Your task to perform on an android device: Go to wifi settings Image 0: 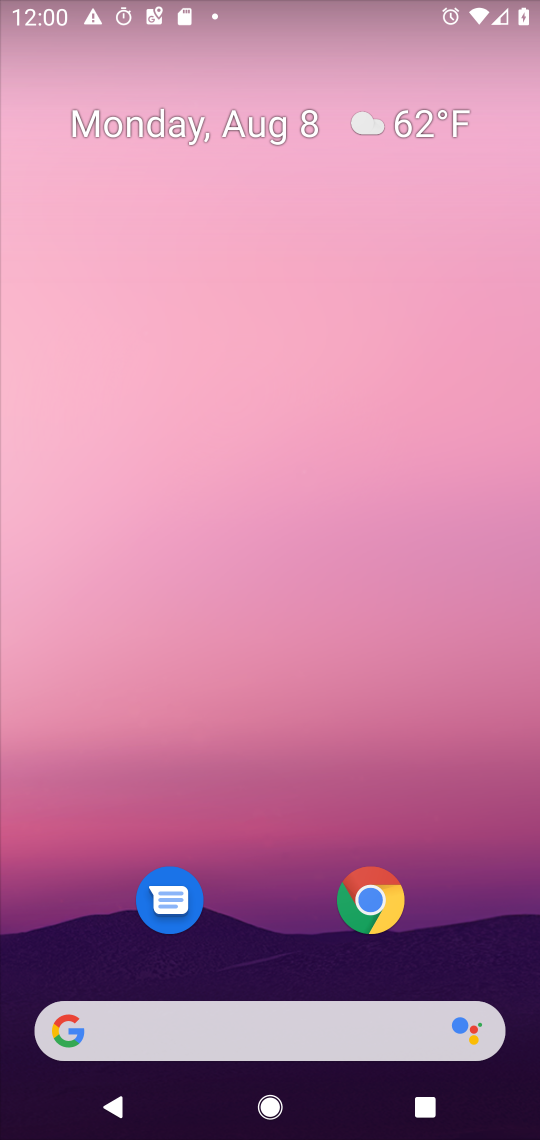
Step 0: press home button
Your task to perform on an android device: Go to wifi settings Image 1: 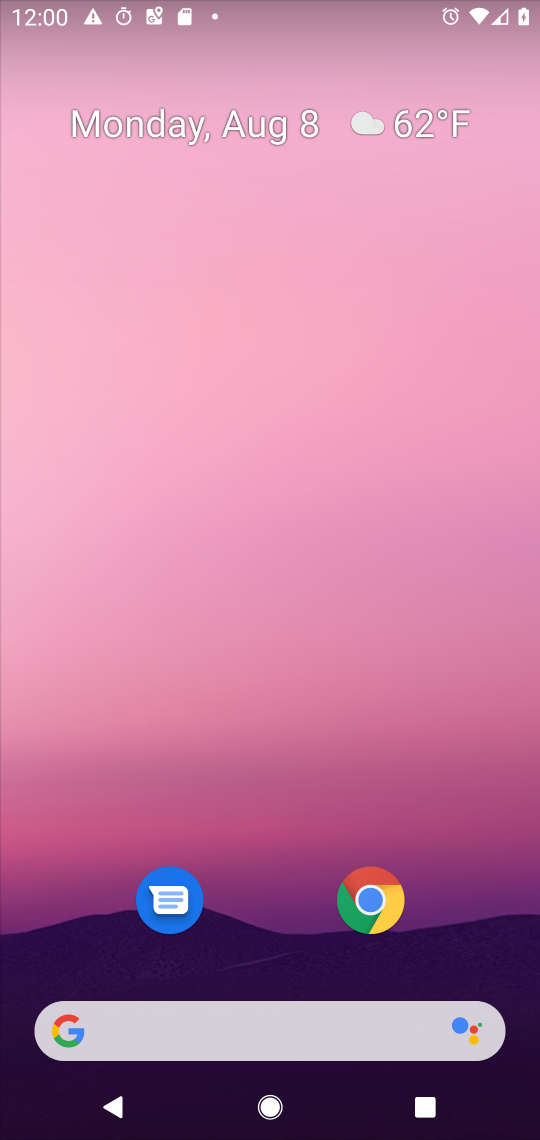
Step 1: drag from (299, 921) to (268, 210)
Your task to perform on an android device: Go to wifi settings Image 2: 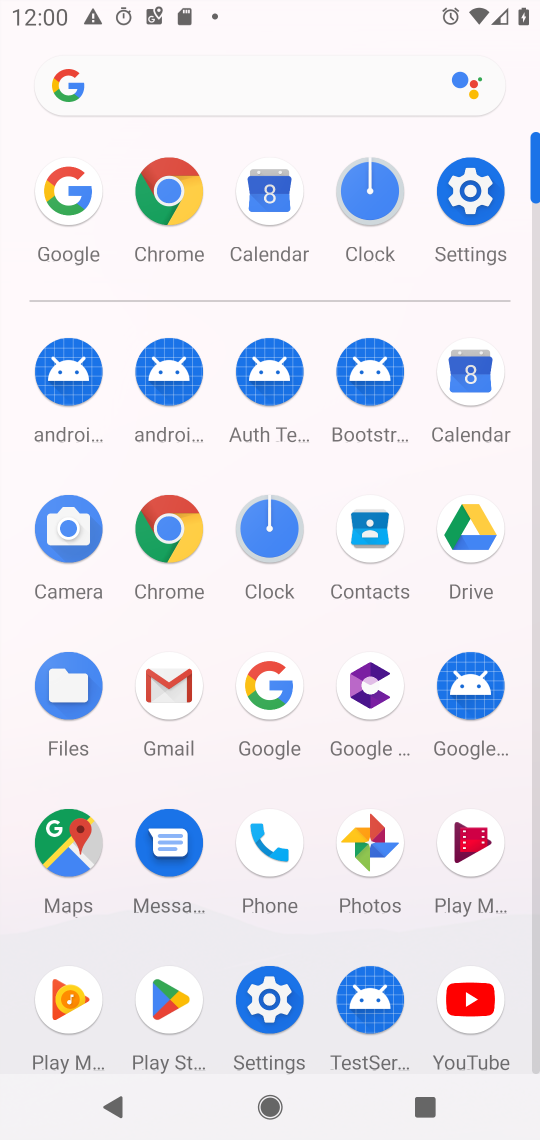
Step 2: click (476, 179)
Your task to perform on an android device: Go to wifi settings Image 3: 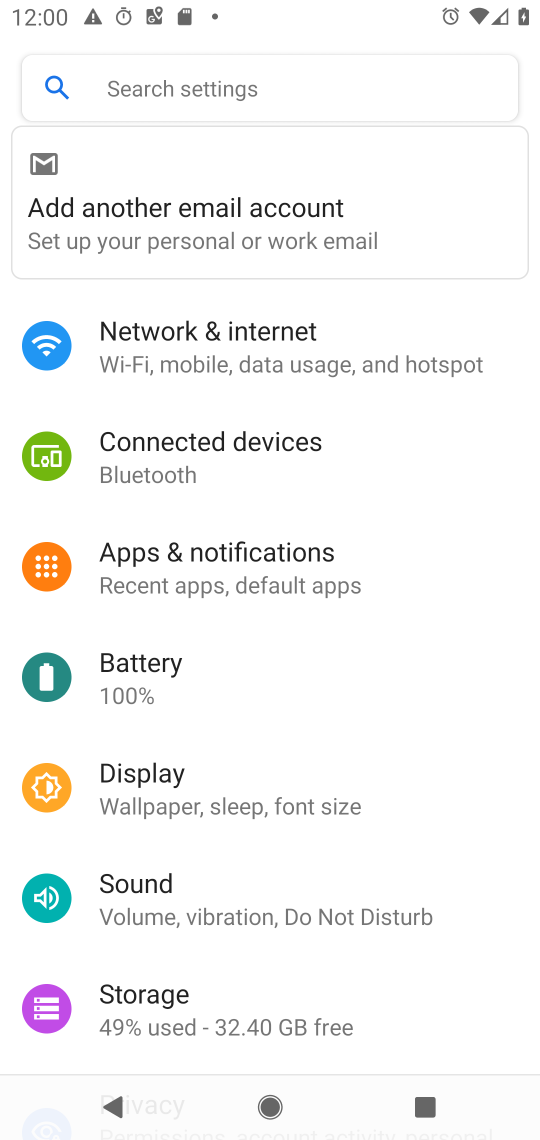
Step 3: click (238, 347)
Your task to perform on an android device: Go to wifi settings Image 4: 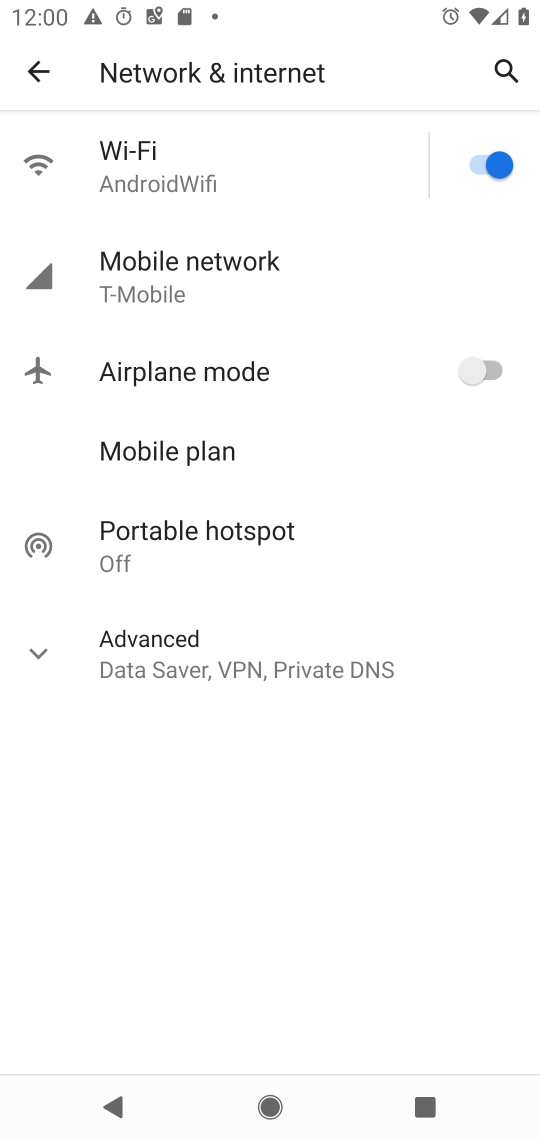
Step 4: click (173, 151)
Your task to perform on an android device: Go to wifi settings Image 5: 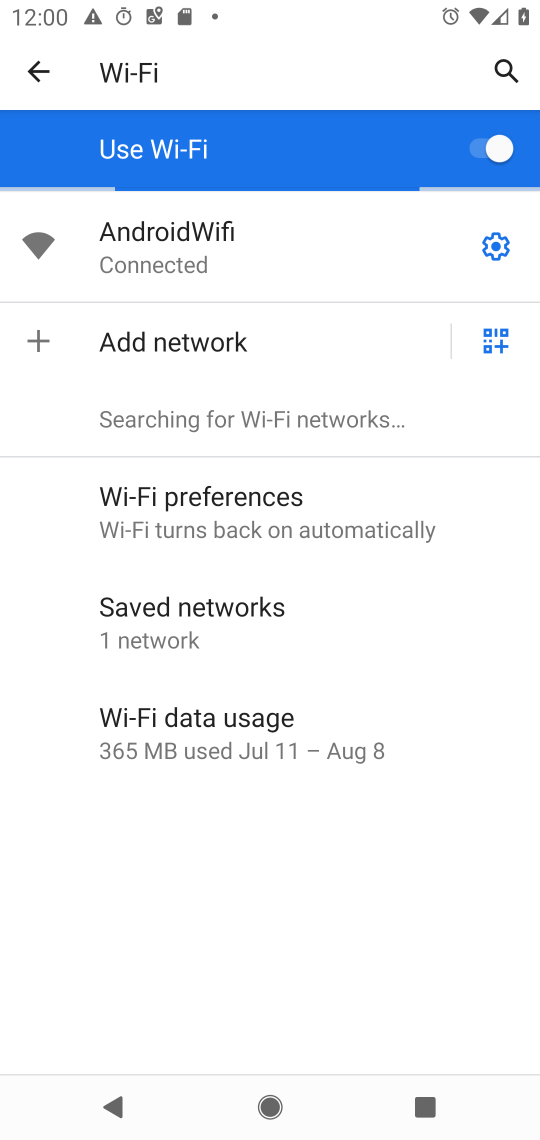
Step 5: task complete